Your task to perform on an android device: Play the last video I watched on Youtube Image 0: 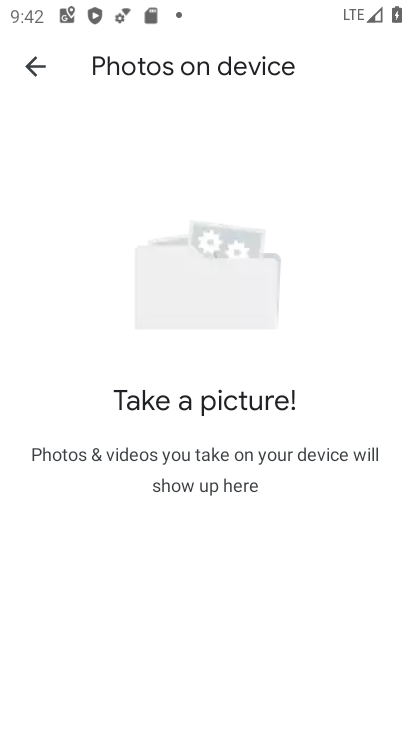
Step 0: press home button
Your task to perform on an android device: Play the last video I watched on Youtube Image 1: 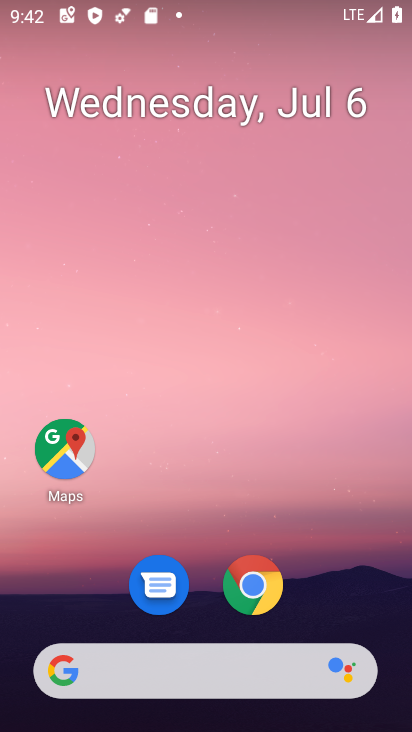
Step 1: drag from (269, 350) to (255, 25)
Your task to perform on an android device: Play the last video I watched on Youtube Image 2: 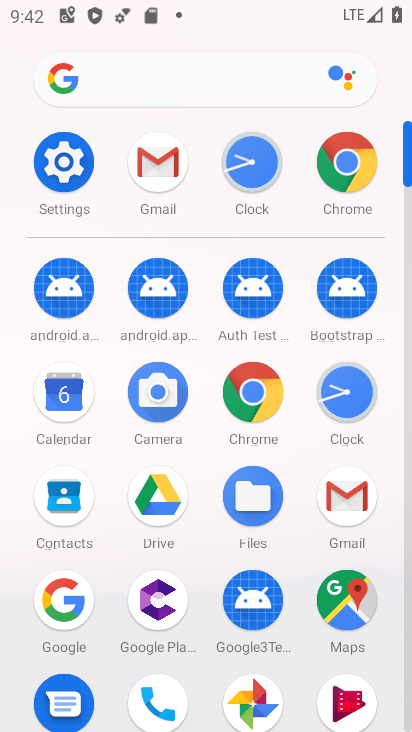
Step 2: drag from (210, 622) to (240, 277)
Your task to perform on an android device: Play the last video I watched on Youtube Image 3: 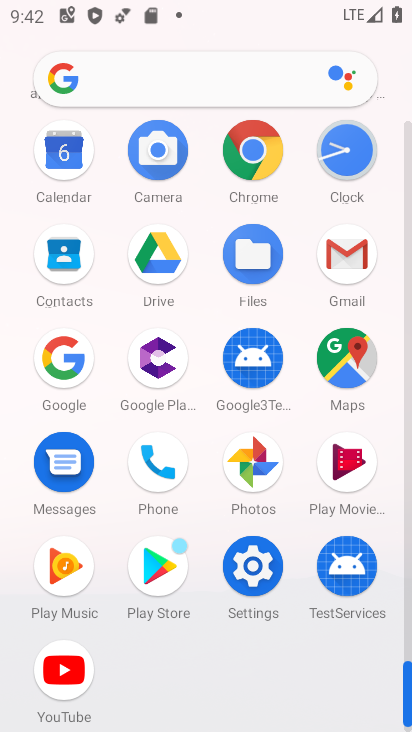
Step 3: click (79, 663)
Your task to perform on an android device: Play the last video I watched on Youtube Image 4: 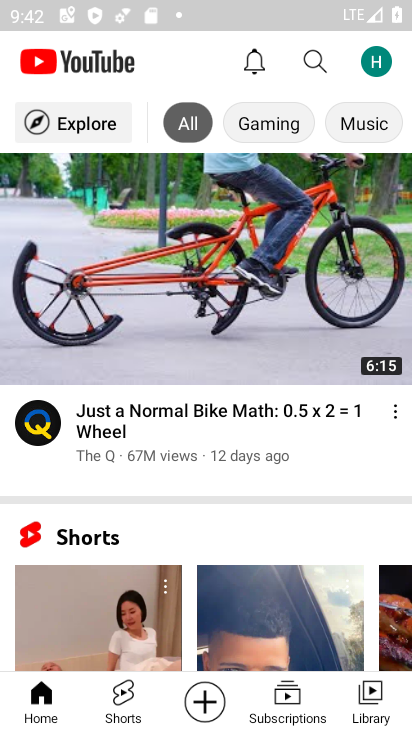
Step 4: click (369, 689)
Your task to perform on an android device: Play the last video I watched on Youtube Image 5: 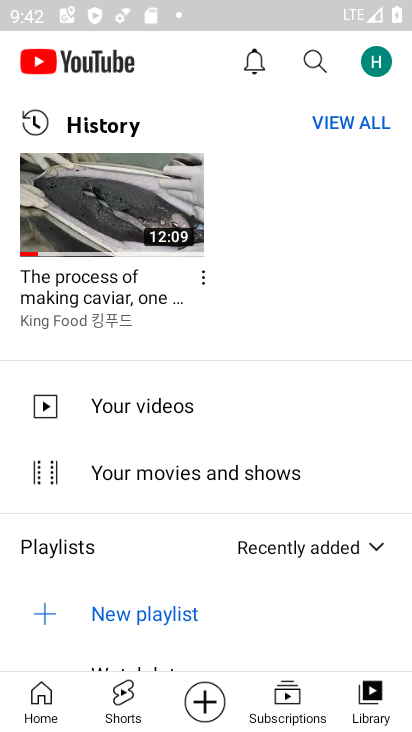
Step 5: click (115, 207)
Your task to perform on an android device: Play the last video I watched on Youtube Image 6: 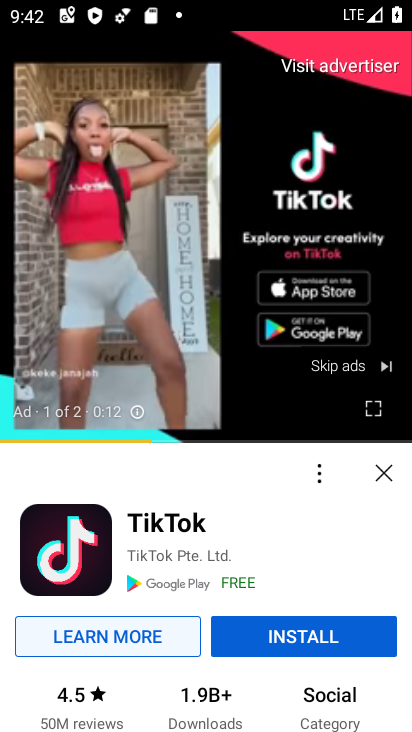
Step 6: task complete